Your task to perform on an android device: Open calendar and show me the first week of next month Image 0: 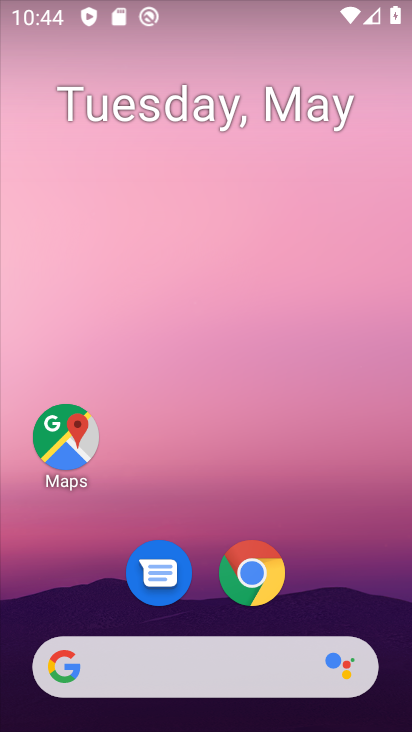
Step 0: drag from (222, 649) to (219, 171)
Your task to perform on an android device: Open calendar and show me the first week of next month Image 1: 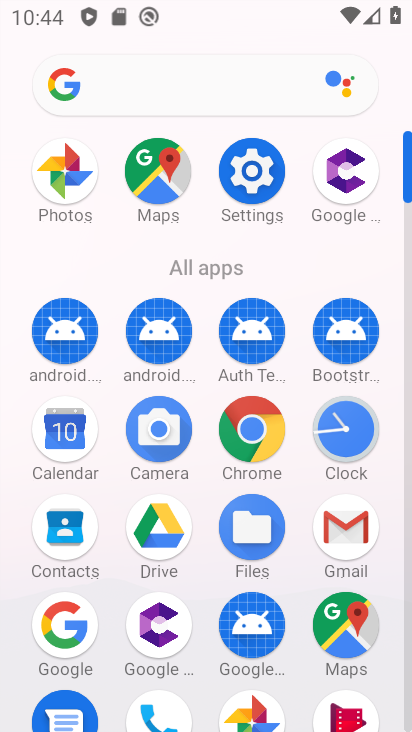
Step 1: click (74, 441)
Your task to perform on an android device: Open calendar and show me the first week of next month Image 2: 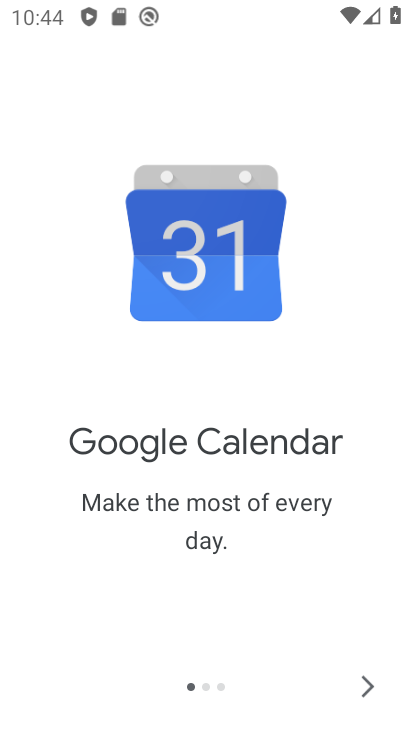
Step 2: click (344, 729)
Your task to perform on an android device: Open calendar and show me the first week of next month Image 3: 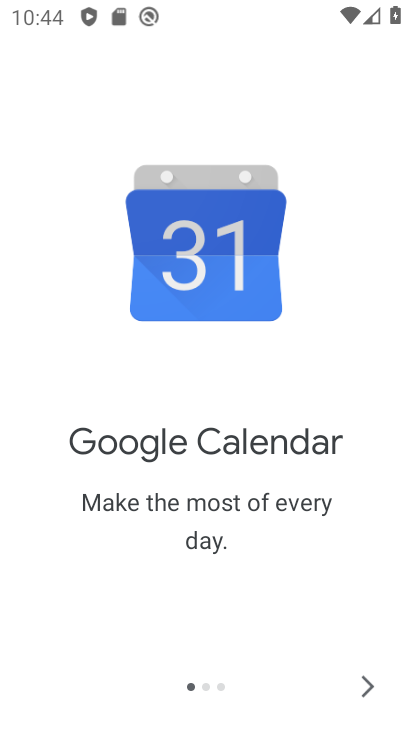
Step 3: click (356, 702)
Your task to perform on an android device: Open calendar and show me the first week of next month Image 4: 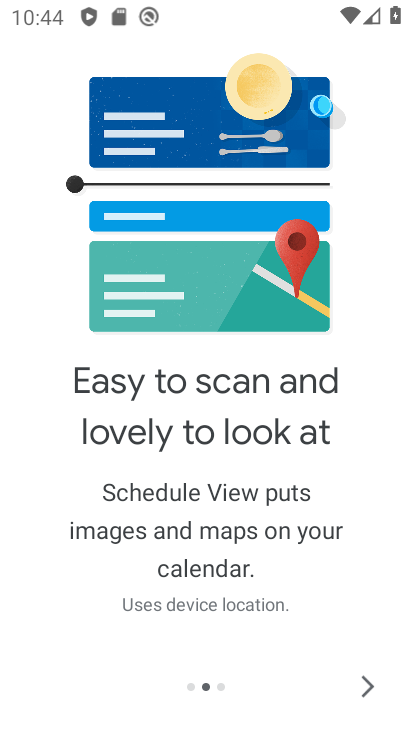
Step 4: click (356, 702)
Your task to perform on an android device: Open calendar and show me the first week of next month Image 5: 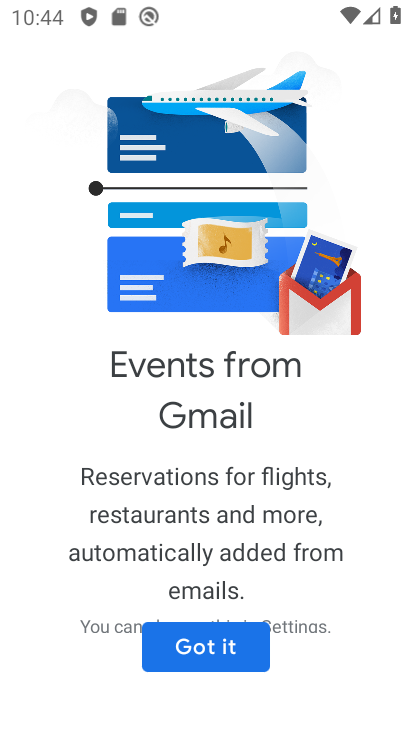
Step 5: click (195, 644)
Your task to perform on an android device: Open calendar and show me the first week of next month Image 6: 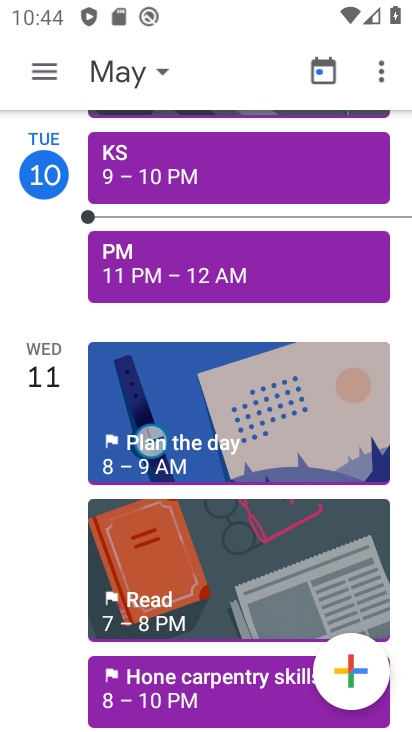
Step 6: click (124, 71)
Your task to perform on an android device: Open calendar and show me the first week of next month Image 7: 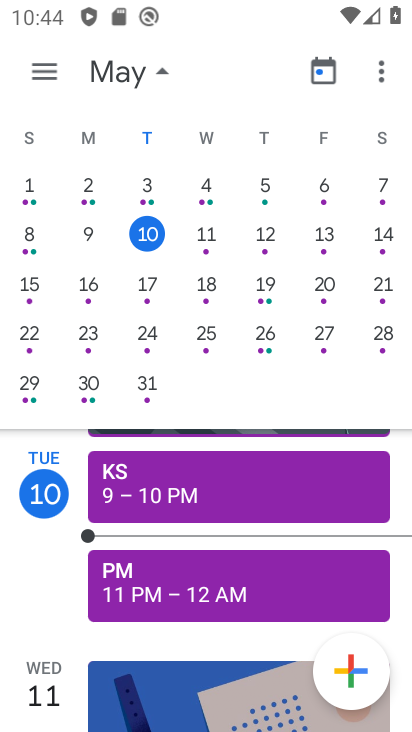
Step 7: task complete